Your task to perform on an android device: Open Google Chrome and click the shortcut for Amazon.com Image 0: 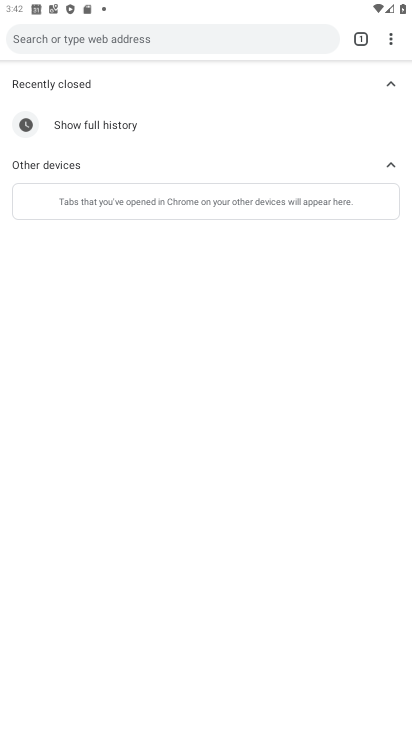
Step 0: press home button
Your task to perform on an android device: Open Google Chrome and click the shortcut for Amazon.com Image 1: 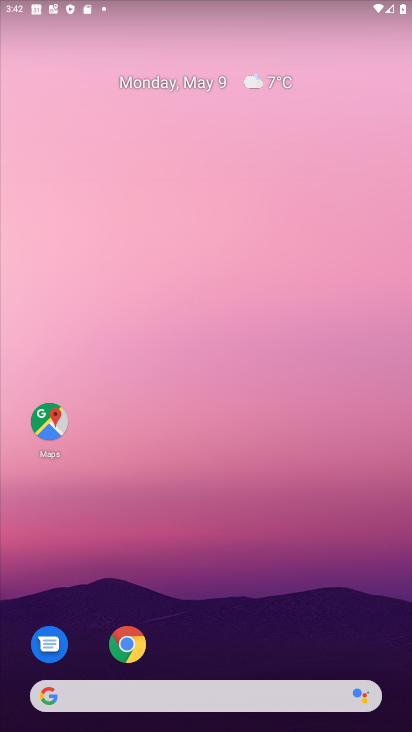
Step 1: drag from (282, 627) to (190, 15)
Your task to perform on an android device: Open Google Chrome and click the shortcut for Amazon.com Image 2: 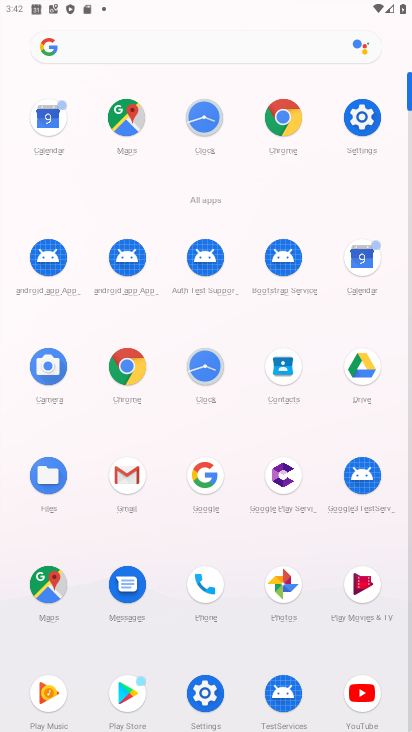
Step 2: click (288, 113)
Your task to perform on an android device: Open Google Chrome and click the shortcut for Amazon.com Image 3: 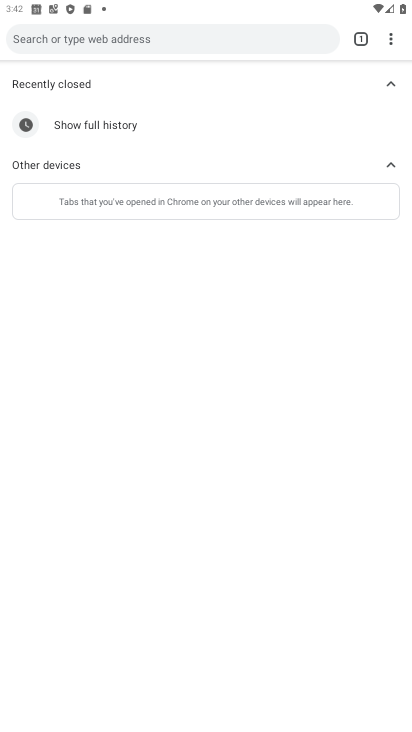
Step 3: drag from (391, 32) to (252, 121)
Your task to perform on an android device: Open Google Chrome and click the shortcut for Amazon.com Image 4: 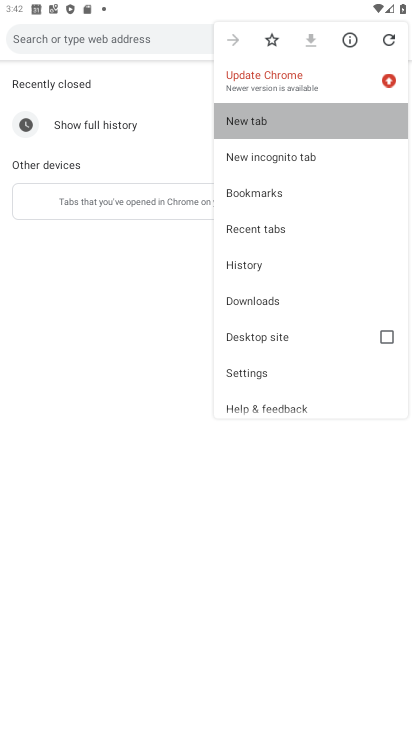
Step 4: click (252, 121)
Your task to perform on an android device: Open Google Chrome and click the shortcut for Amazon.com Image 5: 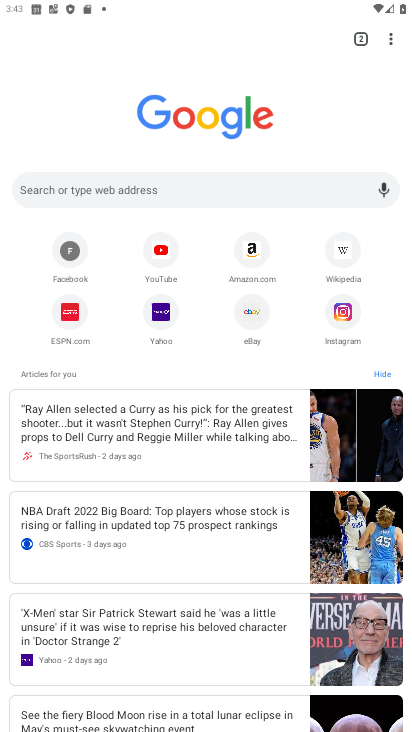
Step 5: click (245, 249)
Your task to perform on an android device: Open Google Chrome and click the shortcut for Amazon.com Image 6: 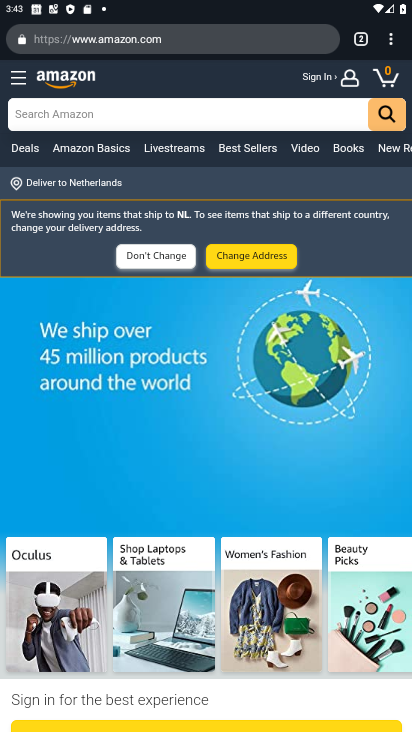
Step 6: task complete